Your task to perform on an android device: install app "Microsoft Outlook" Image 0: 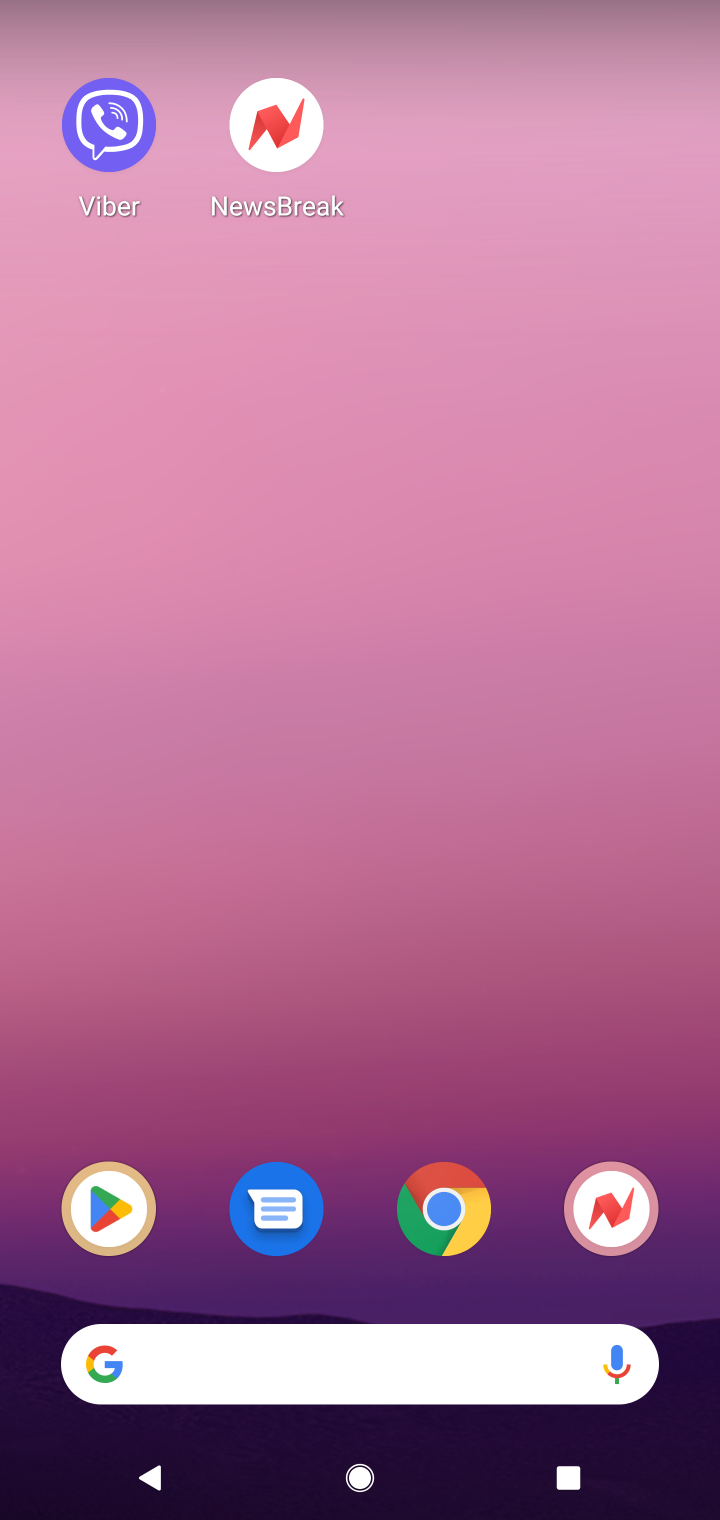
Step 0: press home button
Your task to perform on an android device: install app "Microsoft Outlook" Image 1: 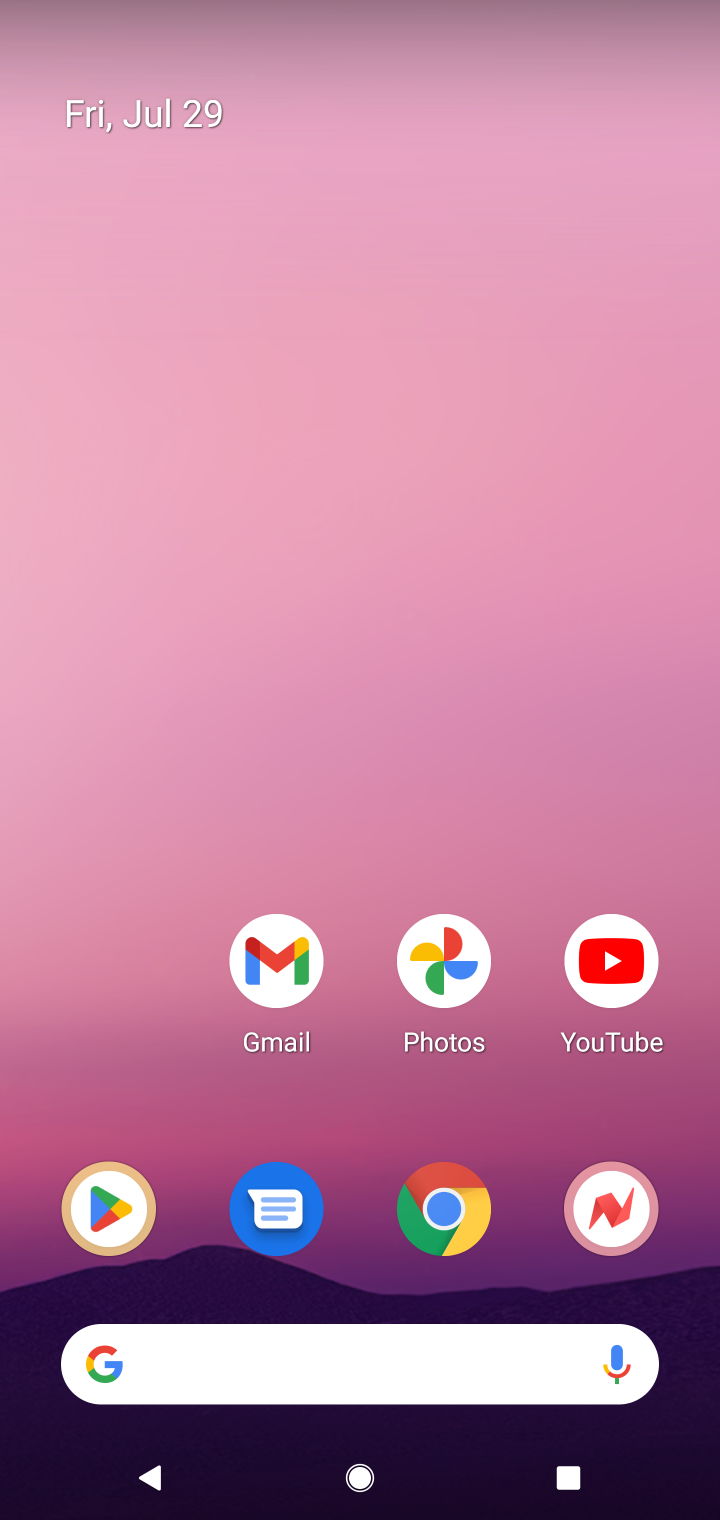
Step 1: click (127, 1222)
Your task to perform on an android device: install app "Microsoft Outlook" Image 2: 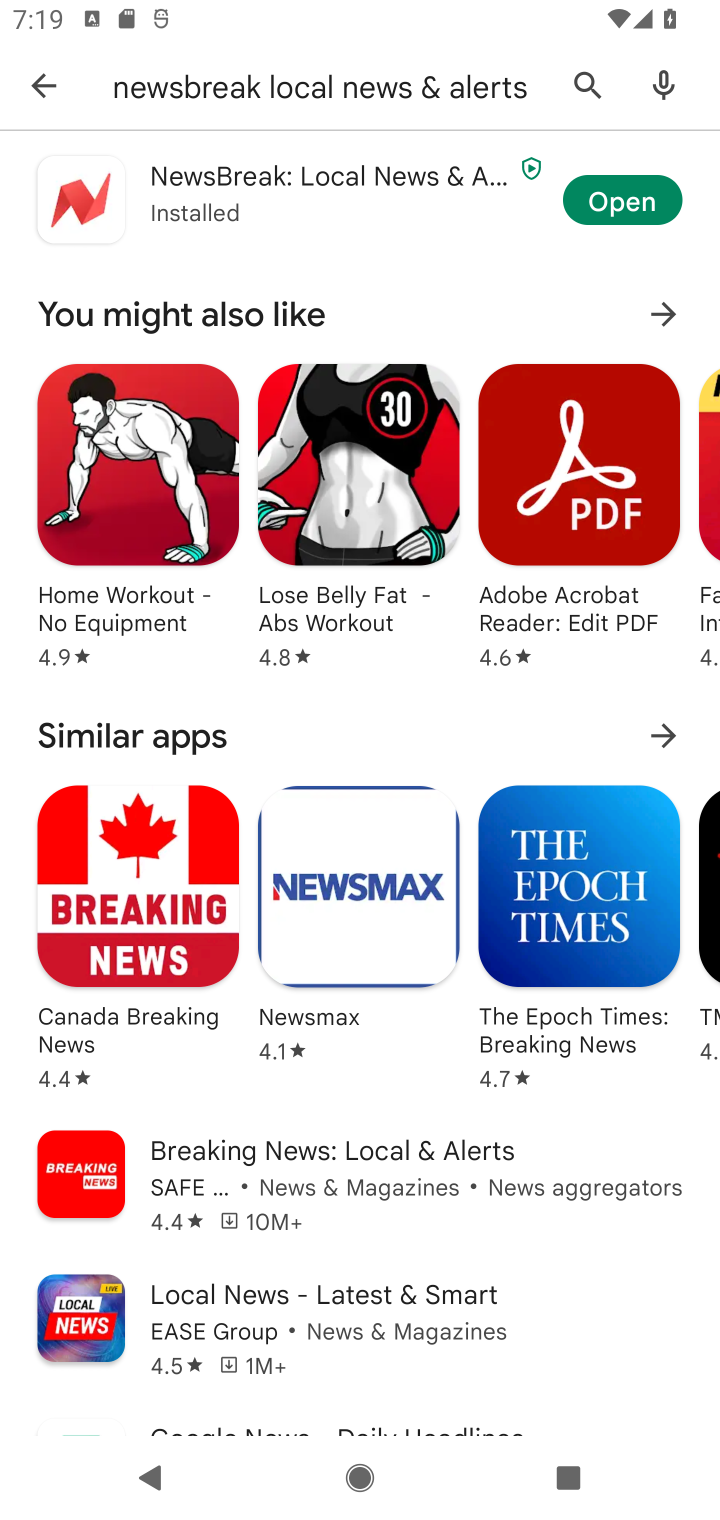
Step 2: click (577, 77)
Your task to perform on an android device: install app "Microsoft Outlook" Image 3: 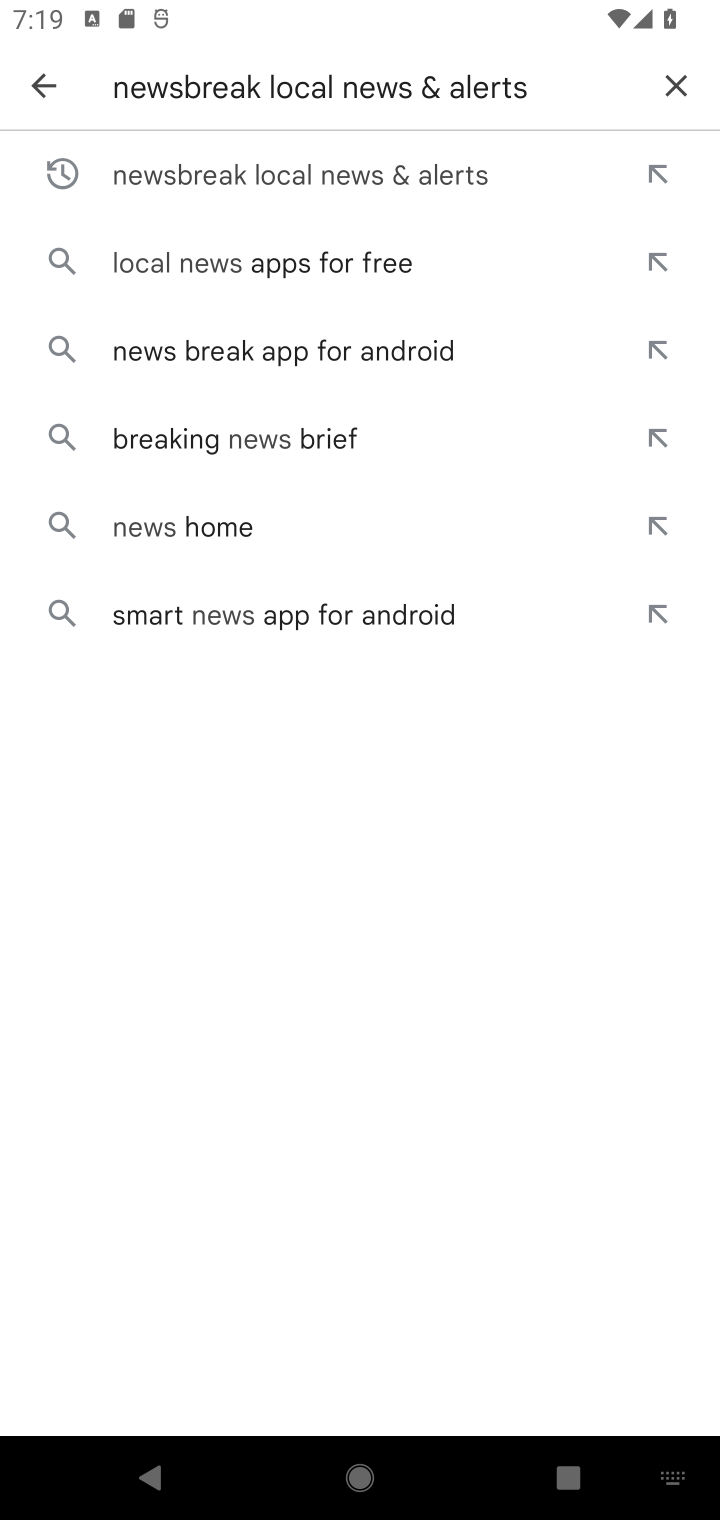
Step 3: click (674, 100)
Your task to perform on an android device: install app "Microsoft Outlook" Image 4: 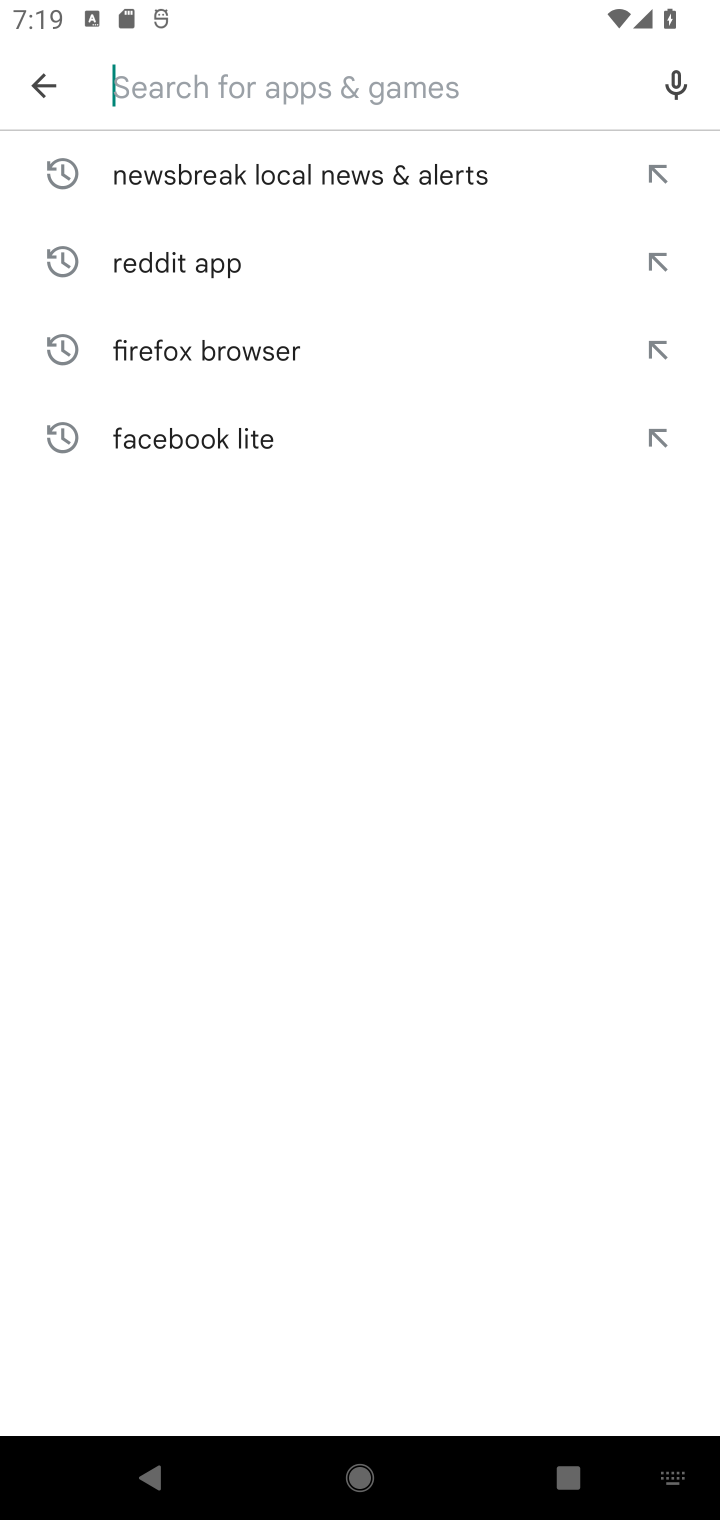
Step 4: type "Microsoft Outlook"
Your task to perform on an android device: install app "Microsoft Outlook" Image 5: 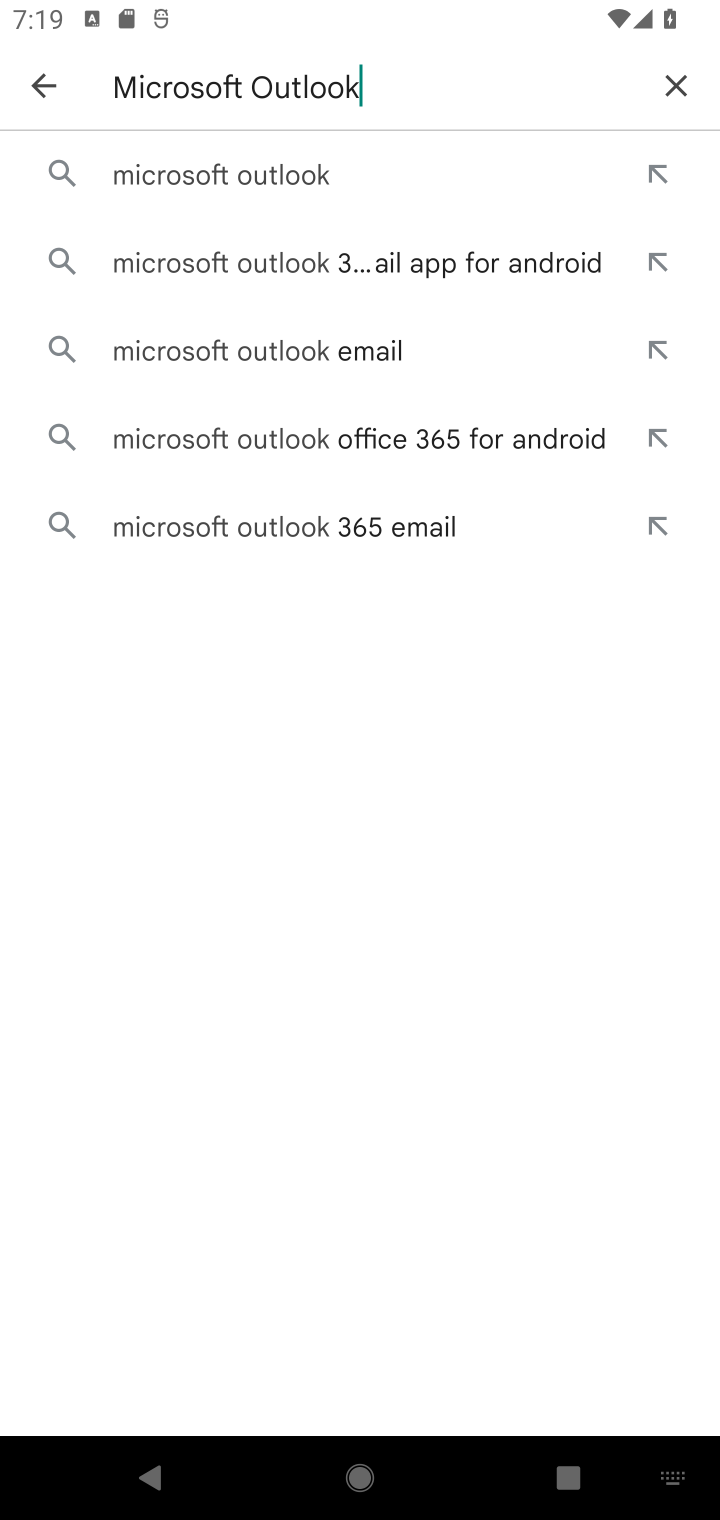
Step 5: click (196, 188)
Your task to perform on an android device: install app "Microsoft Outlook" Image 6: 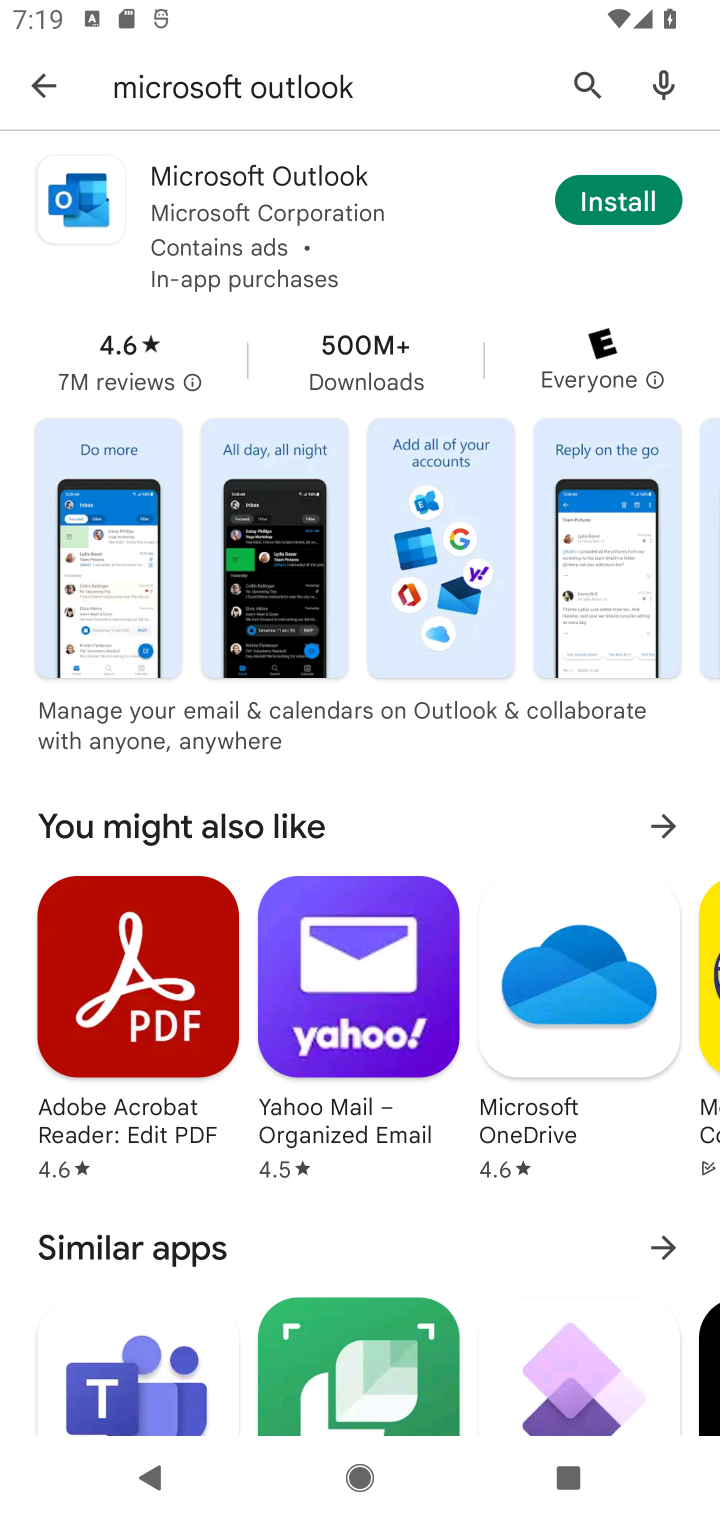
Step 6: click (620, 211)
Your task to perform on an android device: install app "Microsoft Outlook" Image 7: 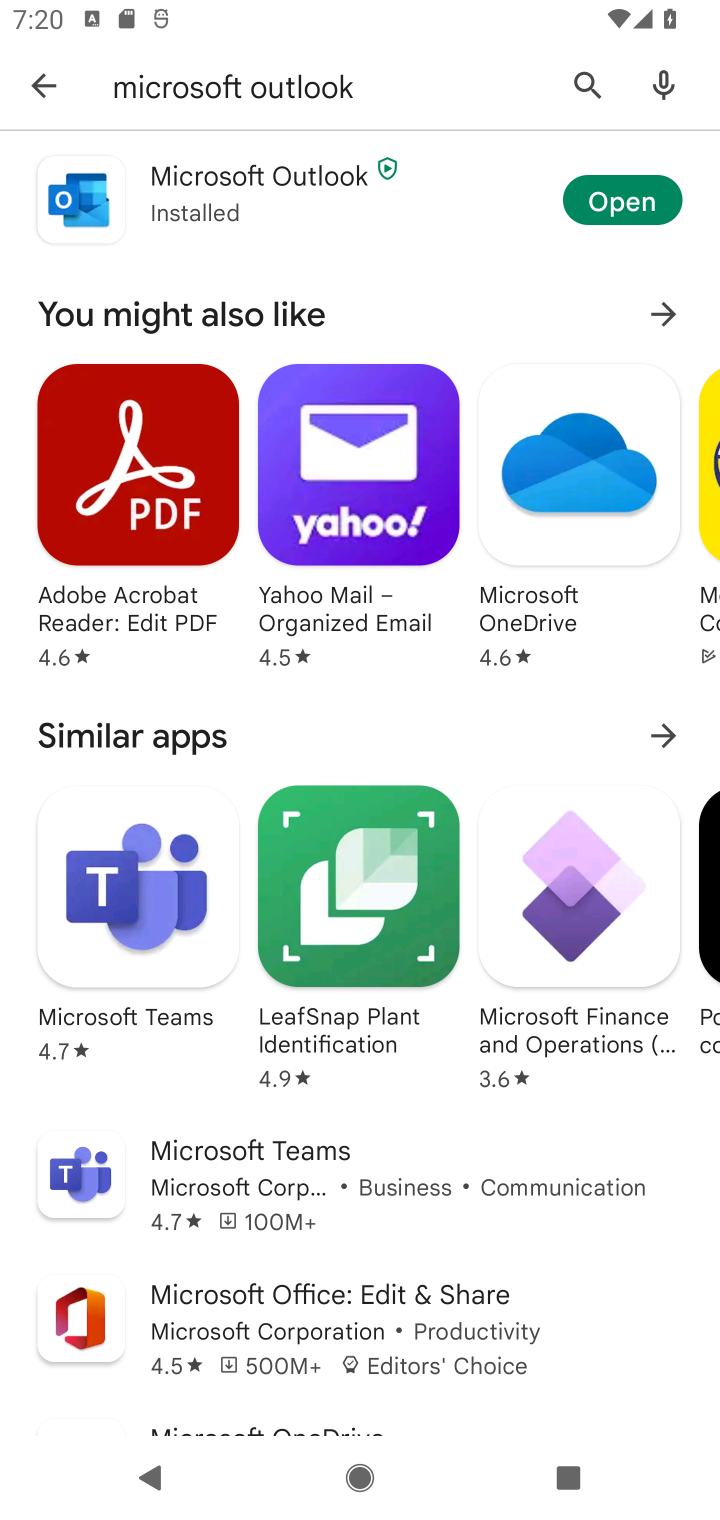
Step 7: task complete